Your task to perform on an android device: turn off data saver in the chrome app Image 0: 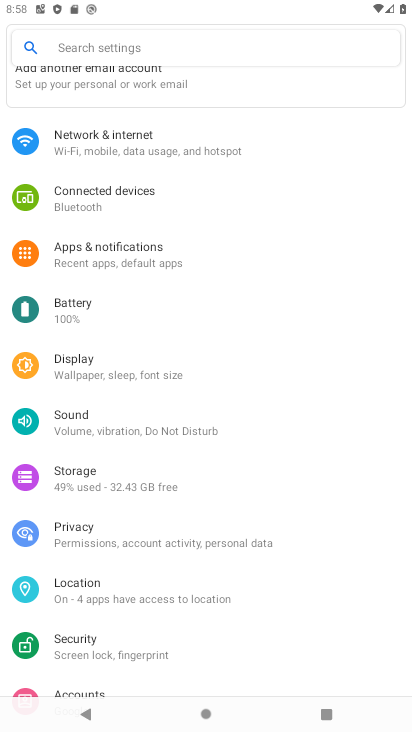
Step 0: press home button
Your task to perform on an android device: turn off data saver in the chrome app Image 1: 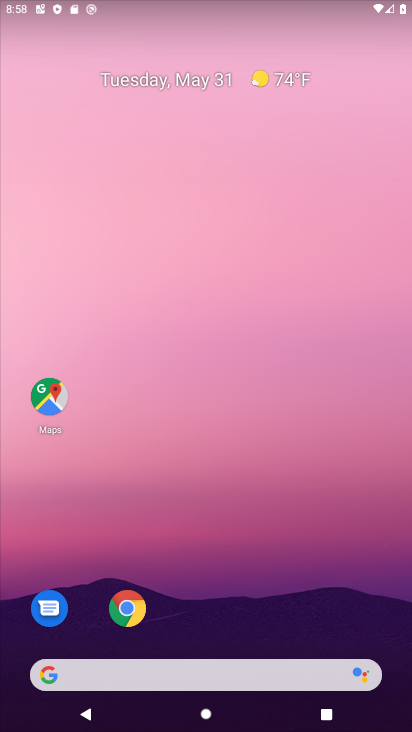
Step 1: click (148, 614)
Your task to perform on an android device: turn off data saver in the chrome app Image 2: 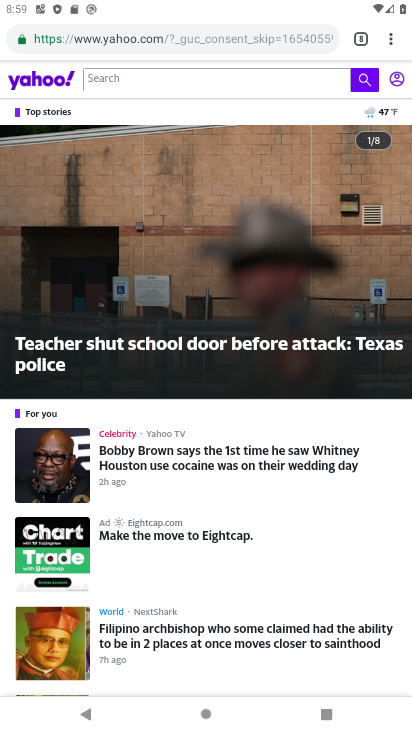
Step 2: click (394, 40)
Your task to perform on an android device: turn off data saver in the chrome app Image 3: 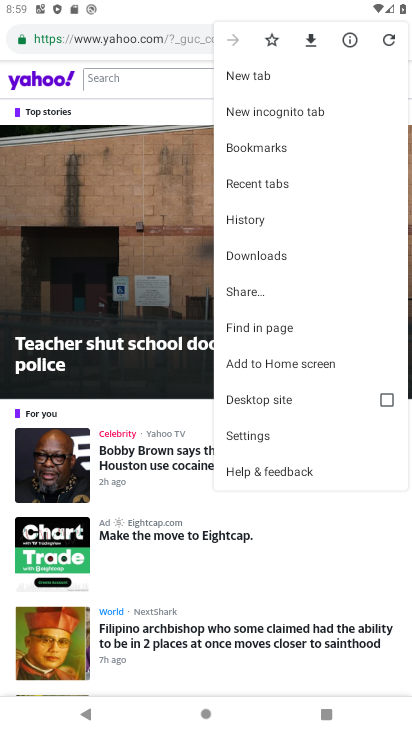
Step 3: click (249, 437)
Your task to perform on an android device: turn off data saver in the chrome app Image 4: 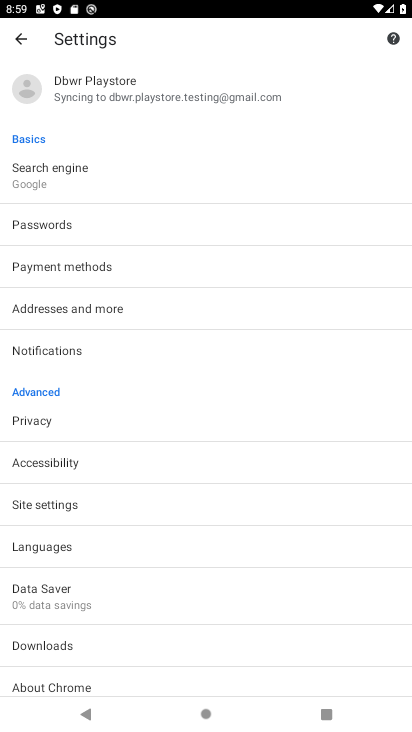
Step 4: click (41, 611)
Your task to perform on an android device: turn off data saver in the chrome app Image 5: 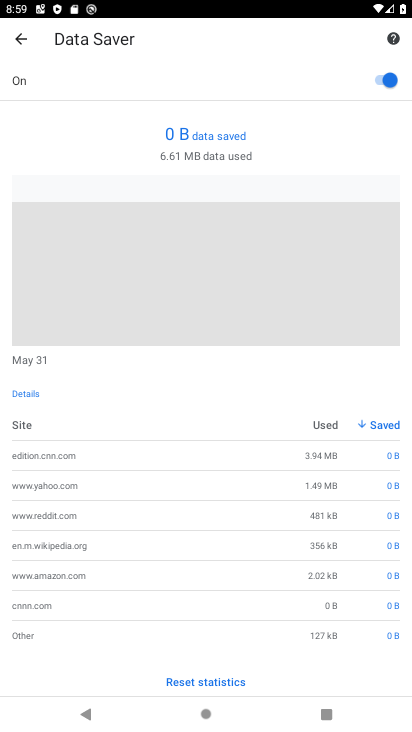
Step 5: click (378, 88)
Your task to perform on an android device: turn off data saver in the chrome app Image 6: 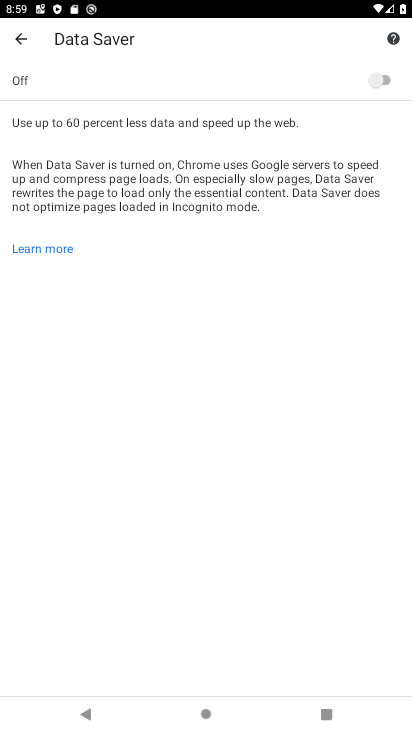
Step 6: task complete